Your task to perform on an android device: move an email to a new category in the gmail app Image 0: 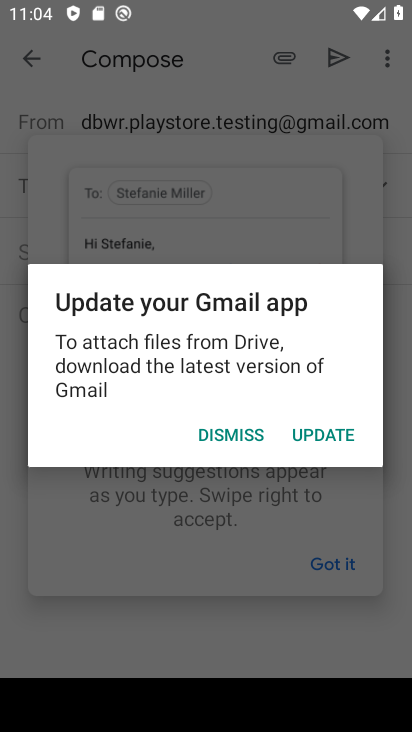
Step 0: press home button
Your task to perform on an android device: move an email to a new category in the gmail app Image 1: 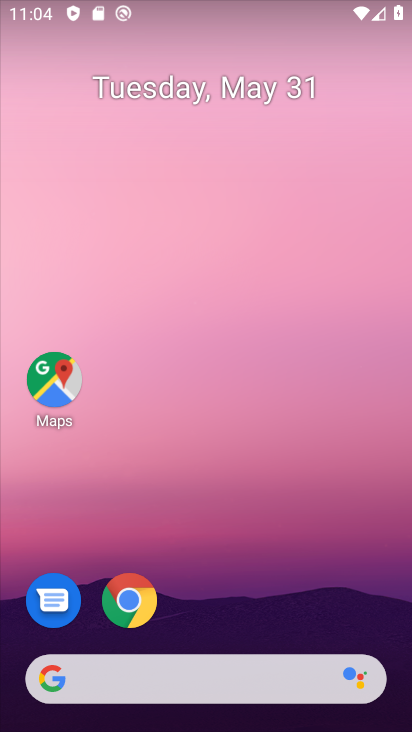
Step 1: drag from (201, 659) to (379, 132)
Your task to perform on an android device: move an email to a new category in the gmail app Image 2: 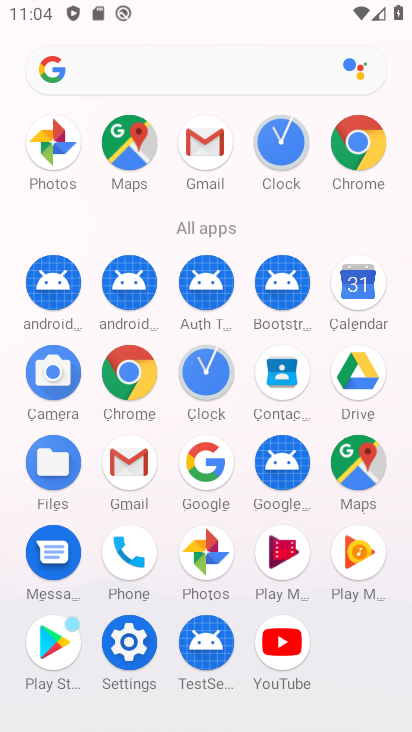
Step 2: click (209, 237)
Your task to perform on an android device: move an email to a new category in the gmail app Image 3: 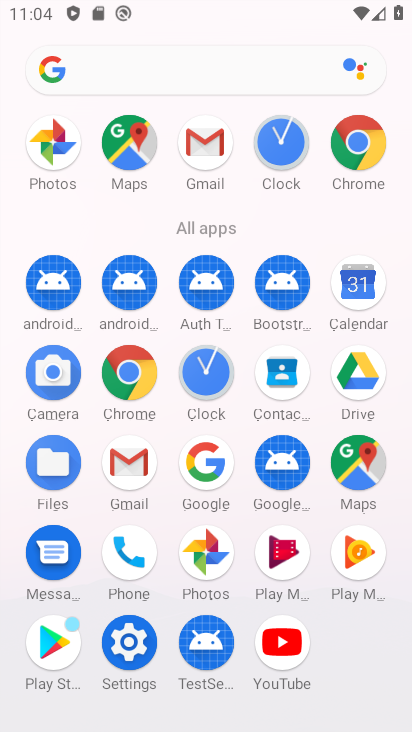
Step 3: click (209, 237)
Your task to perform on an android device: move an email to a new category in the gmail app Image 4: 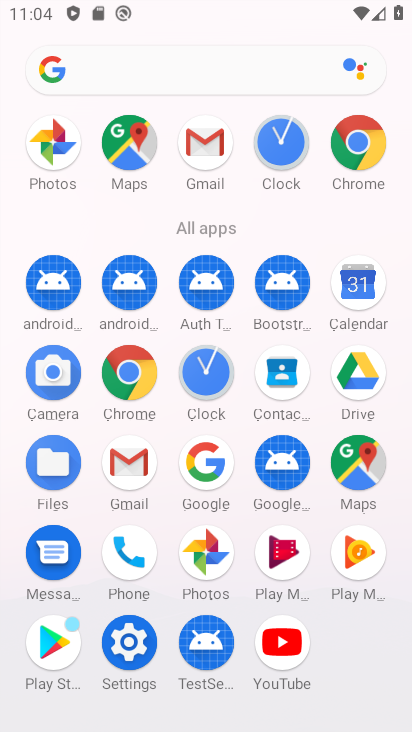
Step 4: click (209, 147)
Your task to perform on an android device: move an email to a new category in the gmail app Image 5: 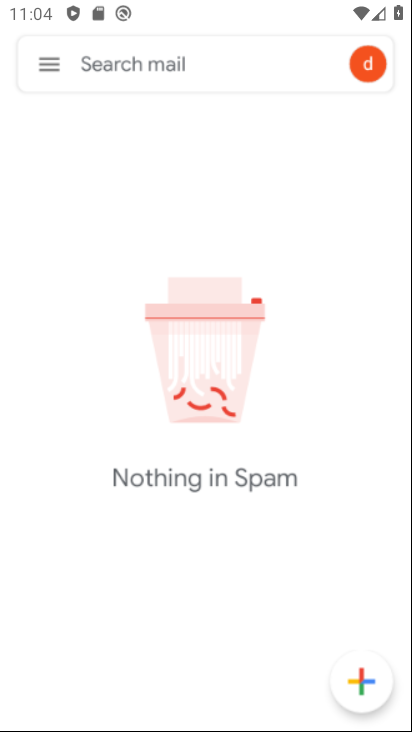
Step 5: click (209, 147)
Your task to perform on an android device: move an email to a new category in the gmail app Image 6: 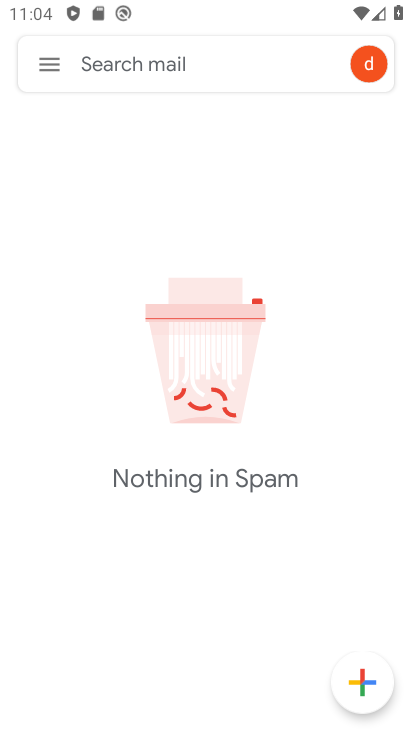
Step 6: task complete